Your task to perform on an android device: turn on data saver in the chrome app Image 0: 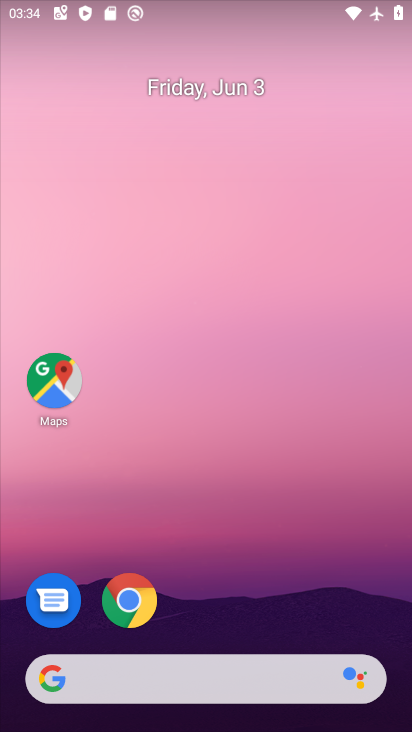
Step 0: drag from (232, 615) to (354, 0)
Your task to perform on an android device: turn on data saver in the chrome app Image 1: 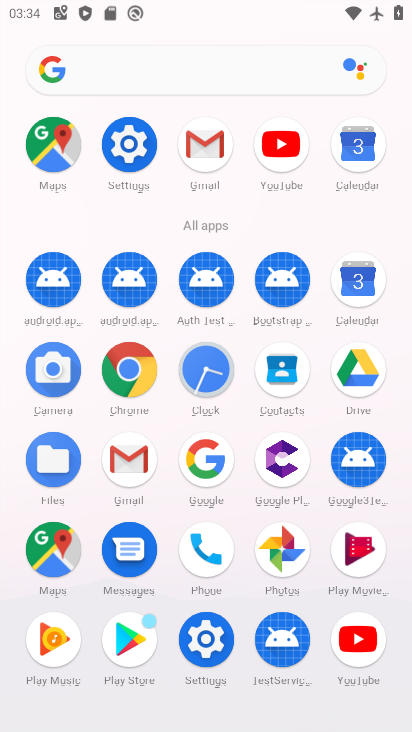
Step 1: click (137, 383)
Your task to perform on an android device: turn on data saver in the chrome app Image 2: 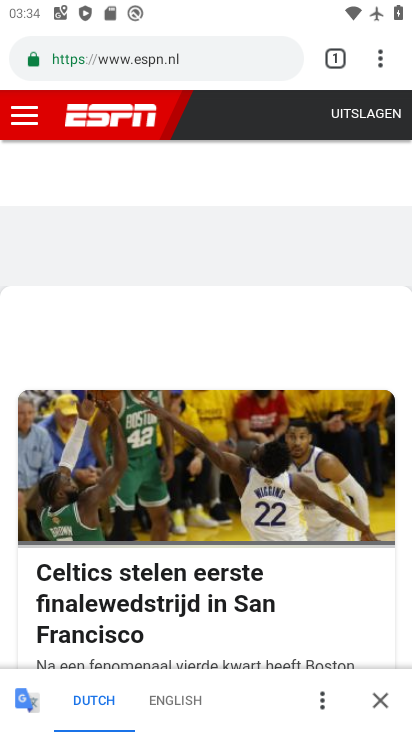
Step 2: click (379, 66)
Your task to perform on an android device: turn on data saver in the chrome app Image 3: 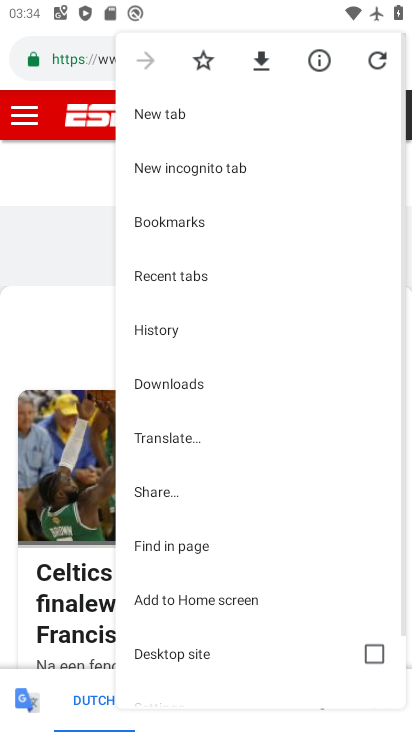
Step 3: drag from (204, 655) to (271, 342)
Your task to perform on an android device: turn on data saver in the chrome app Image 4: 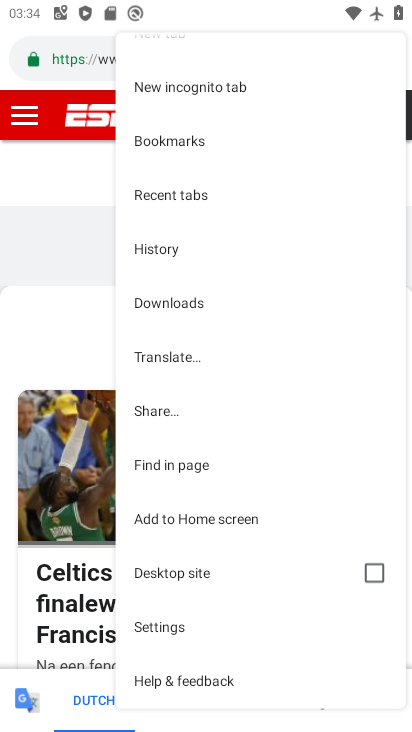
Step 4: click (178, 632)
Your task to perform on an android device: turn on data saver in the chrome app Image 5: 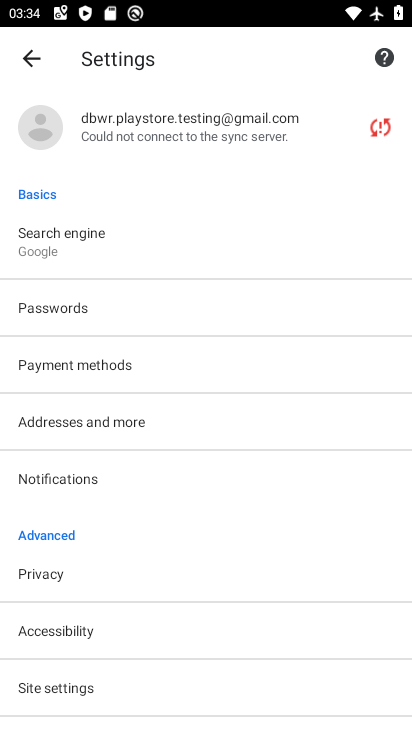
Step 5: drag from (106, 601) to (154, 354)
Your task to perform on an android device: turn on data saver in the chrome app Image 6: 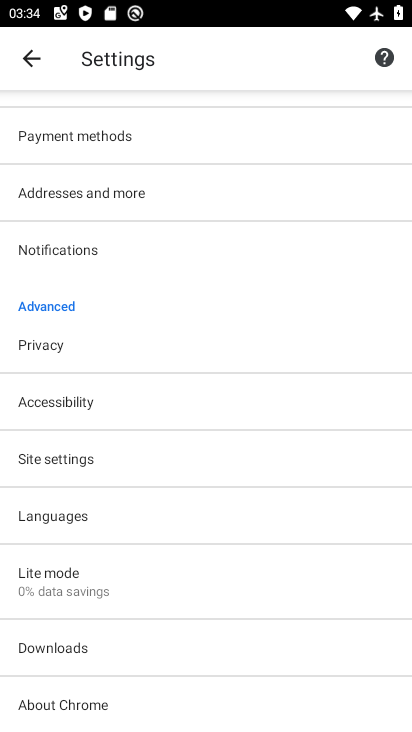
Step 6: click (81, 581)
Your task to perform on an android device: turn on data saver in the chrome app Image 7: 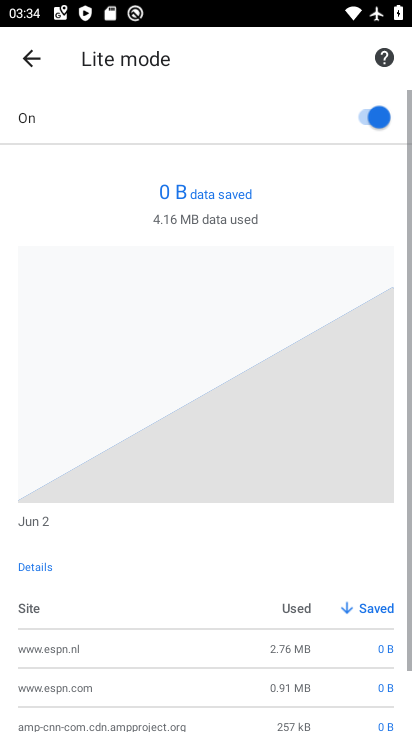
Step 7: click (365, 119)
Your task to perform on an android device: turn on data saver in the chrome app Image 8: 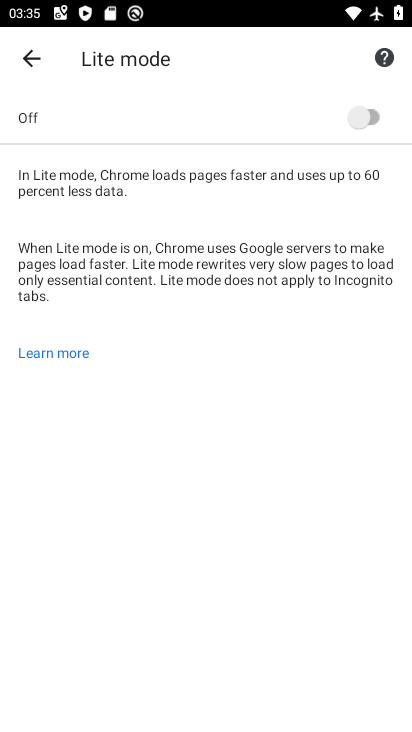
Step 8: click (382, 121)
Your task to perform on an android device: turn on data saver in the chrome app Image 9: 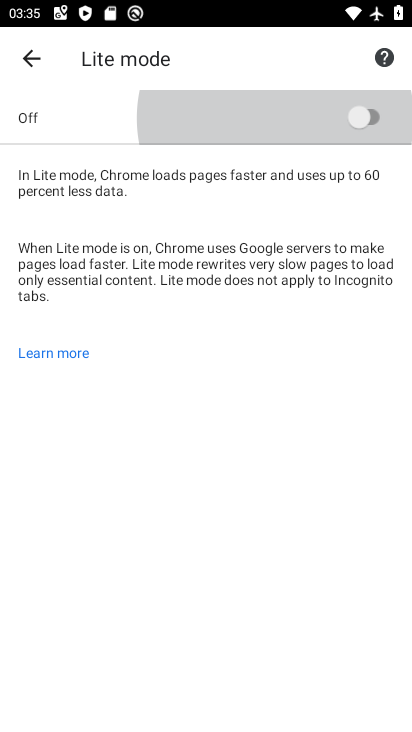
Step 9: task complete